Your task to perform on an android device: Show me productivity apps on the Play Store Image 0: 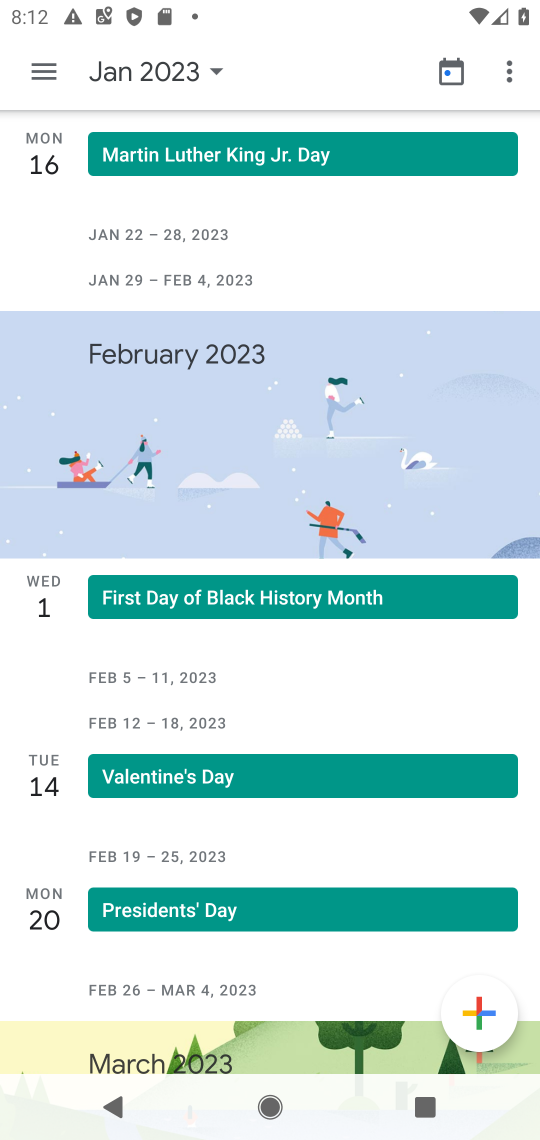
Step 0: press home button
Your task to perform on an android device: Show me productivity apps on the Play Store Image 1: 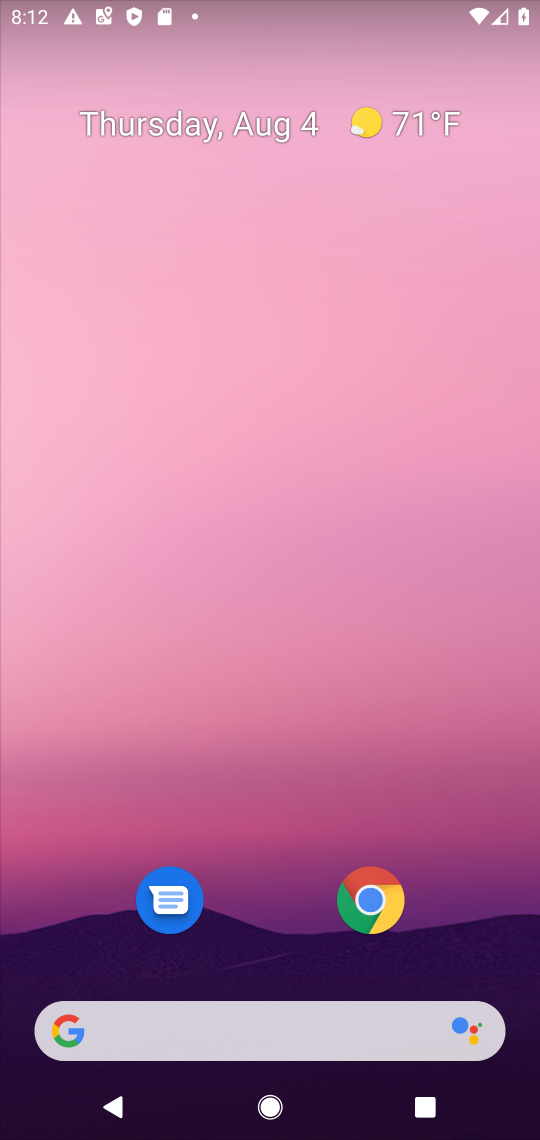
Step 1: click (228, 283)
Your task to perform on an android device: Show me productivity apps on the Play Store Image 2: 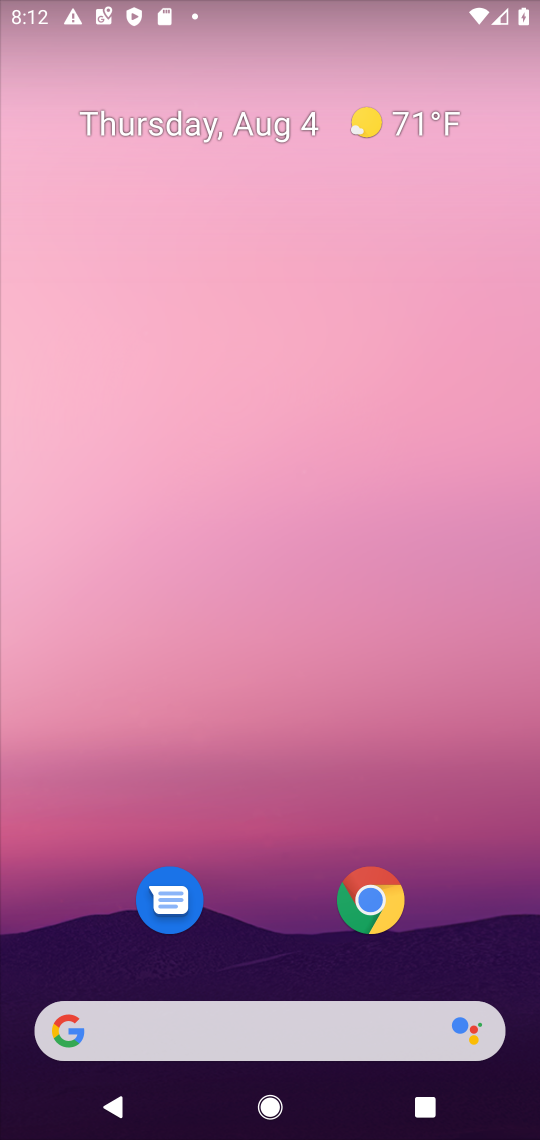
Step 2: drag from (250, 353) to (256, 186)
Your task to perform on an android device: Show me productivity apps on the Play Store Image 3: 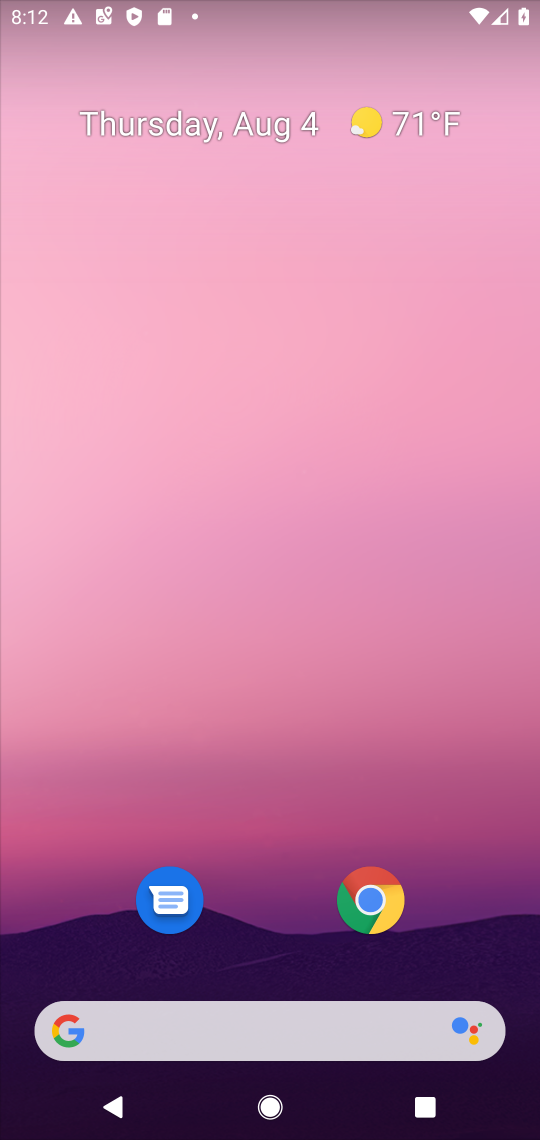
Step 3: click (307, 244)
Your task to perform on an android device: Show me productivity apps on the Play Store Image 4: 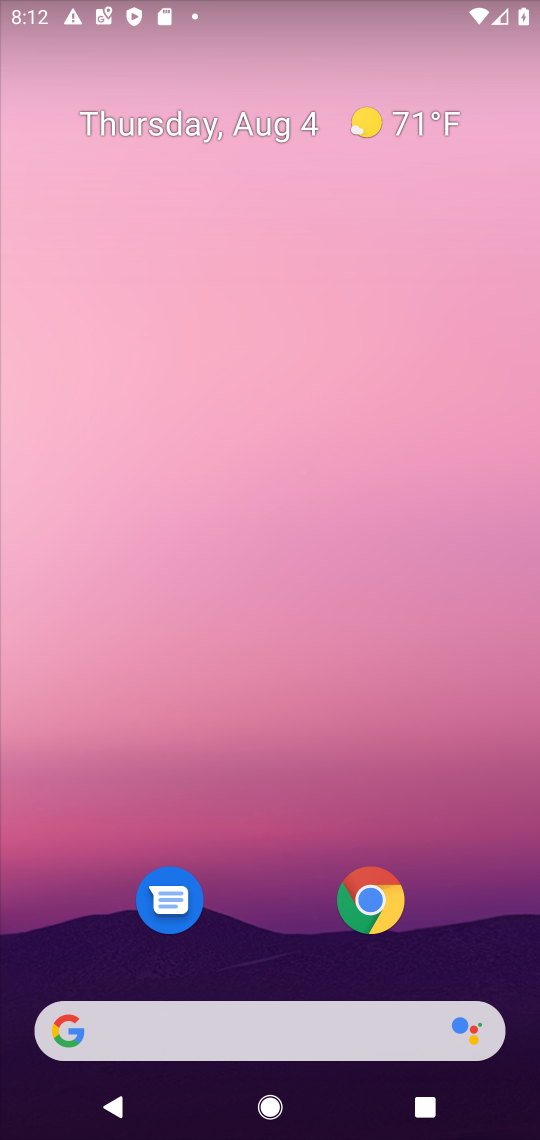
Step 4: drag from (246, 889) to (240, 406)
Your task to perform on an android device: Show me productivity apps on the Play Store Image 5: 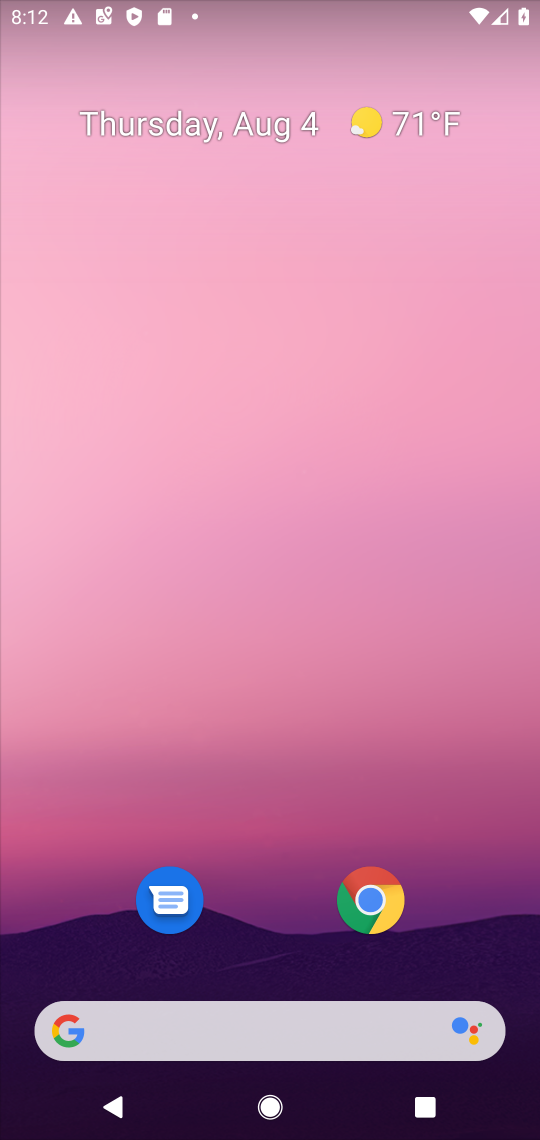
Step 5: drag from (240, 952) to (207, 1)
Your task to perform on an android device: Show me productivity apps on the Play Store Image 6: 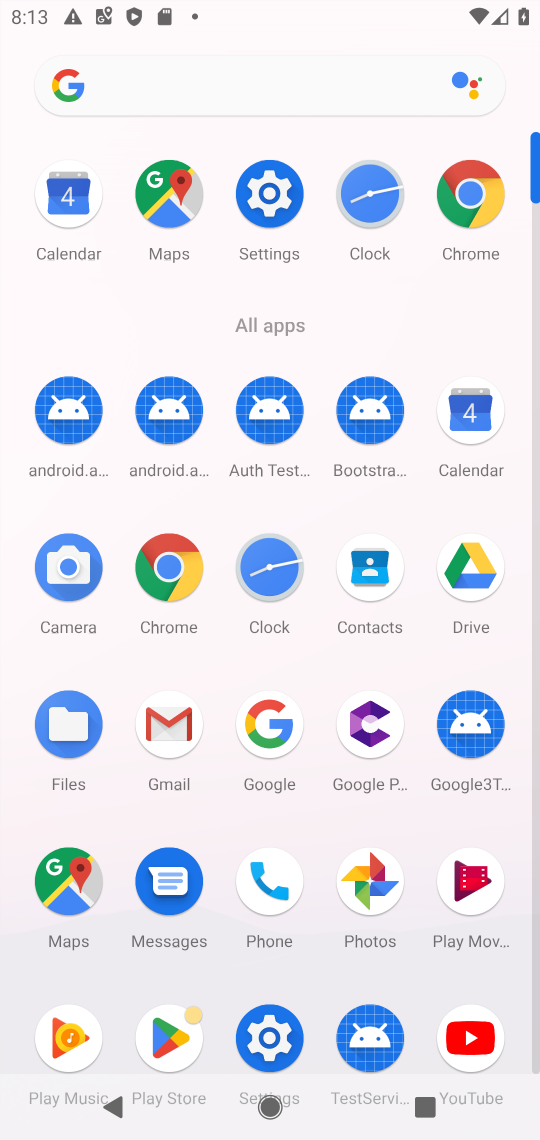
Step 6: click (163, 1024)
Your task to perform on an android device: Show me productivity apps on the Play Store Image 7: 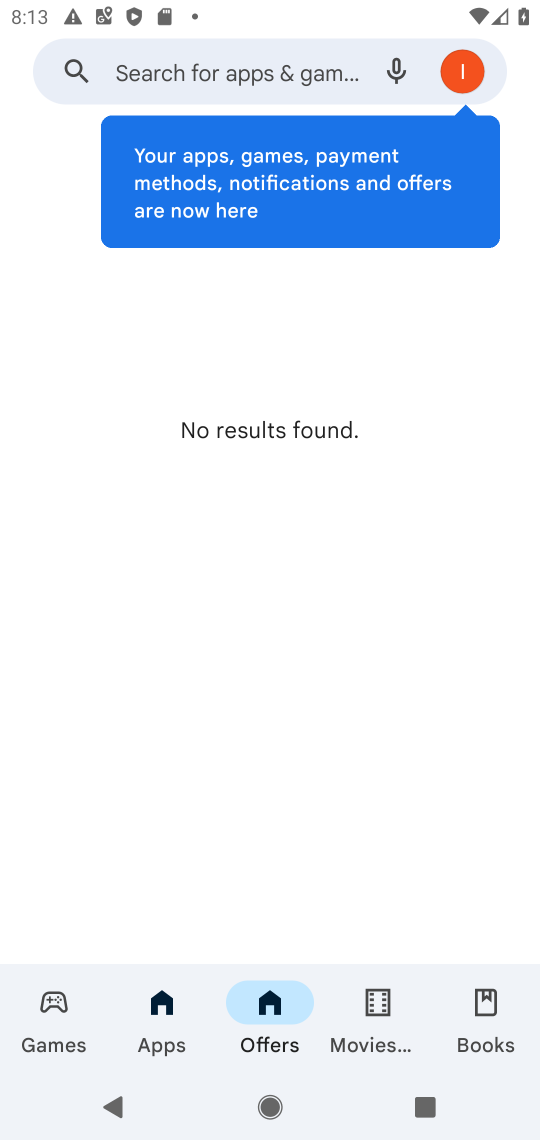
Step 7: click (157, 1007)
Your task to perform on an android device: Show me productivity apps on the Play Store Image 8: 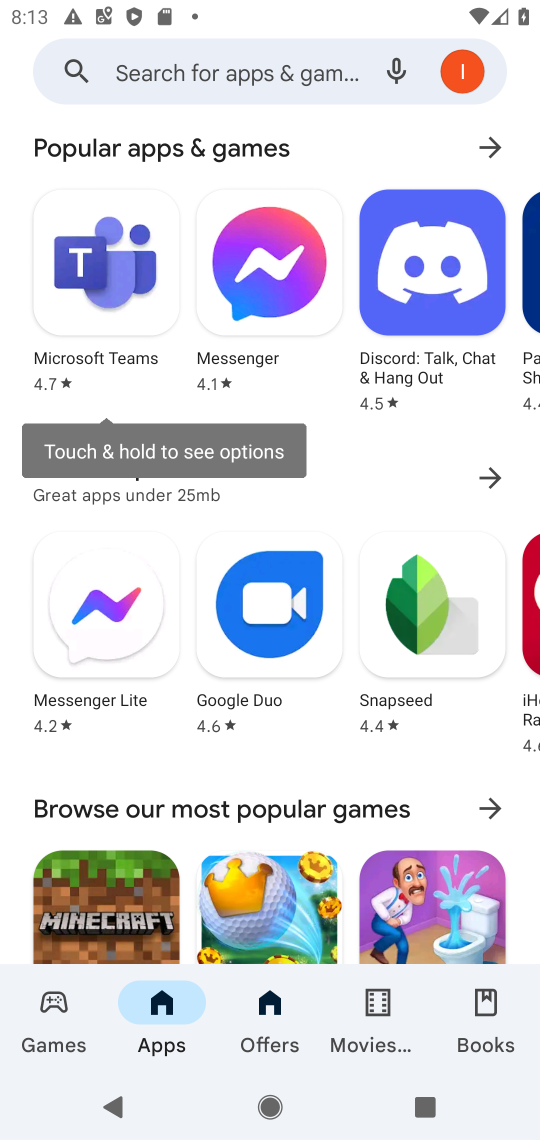
Step 8: click (487, 156)
Your task to perform on an android device: Show me productivity apps on the Play Store Image 9: 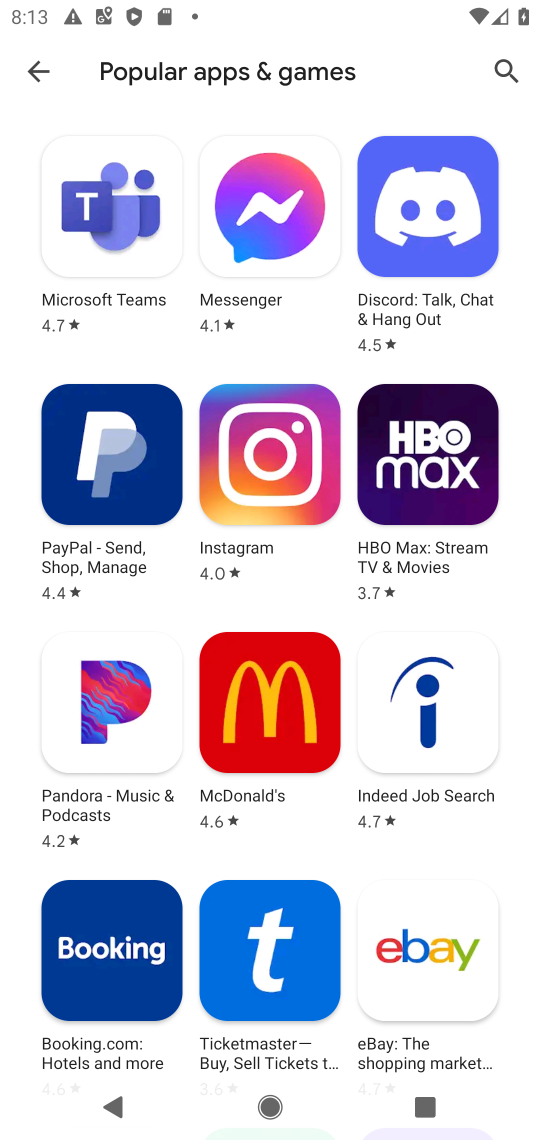
Step 9: click (41, 61)
Your task to perform on an android device: Show me productivity apps on the Play Store Image 10: 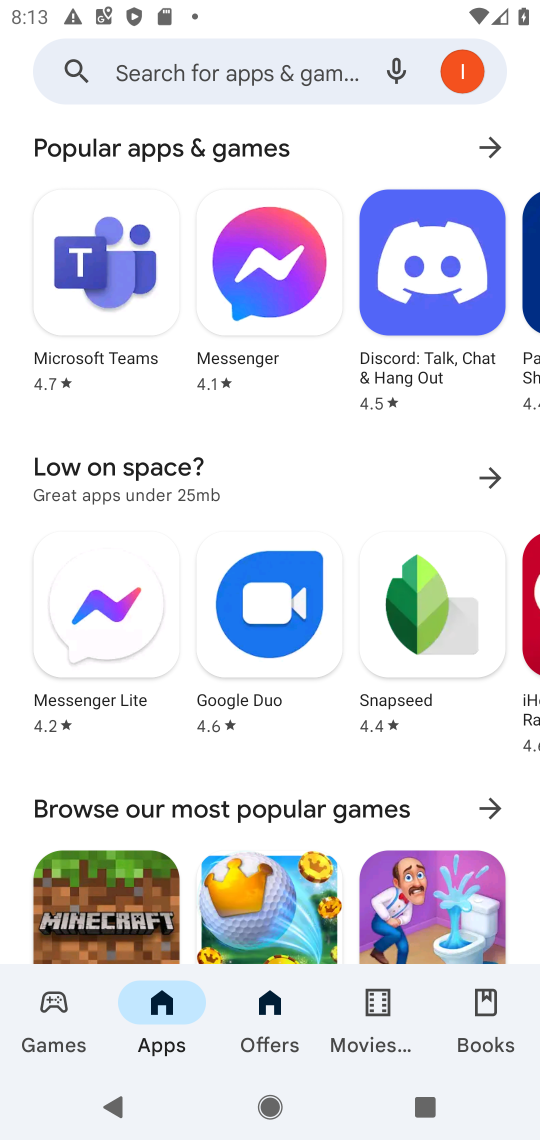
Step 10: click (200, 76)
Your task to perform on an android device: Show me productivity apps on the Play Store Image 11: 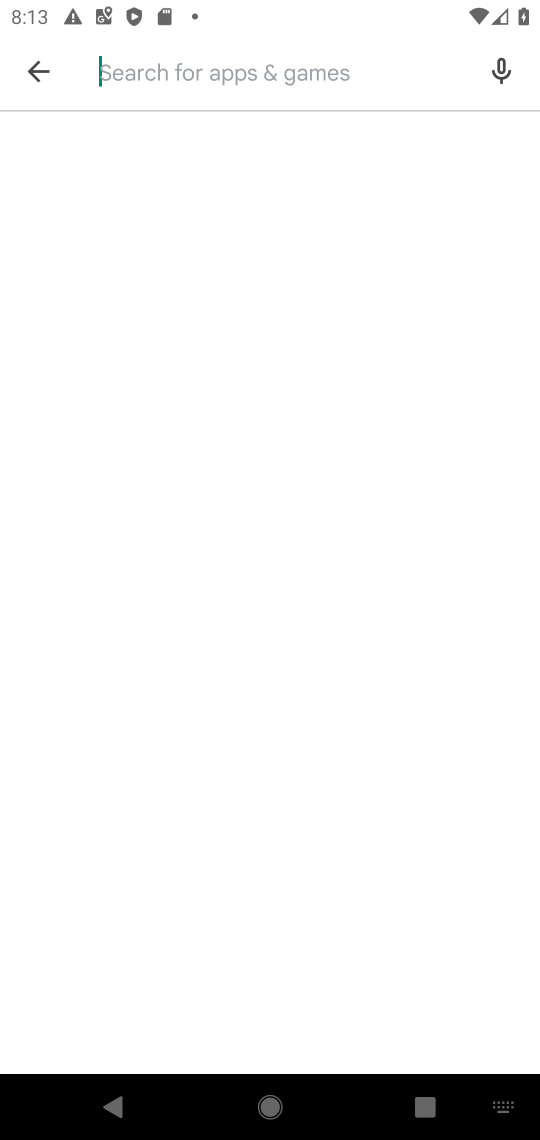
Step 11: click (37, 74)
Your task to perform on an android device: Show me productivity apps on the Play Store Image 12: 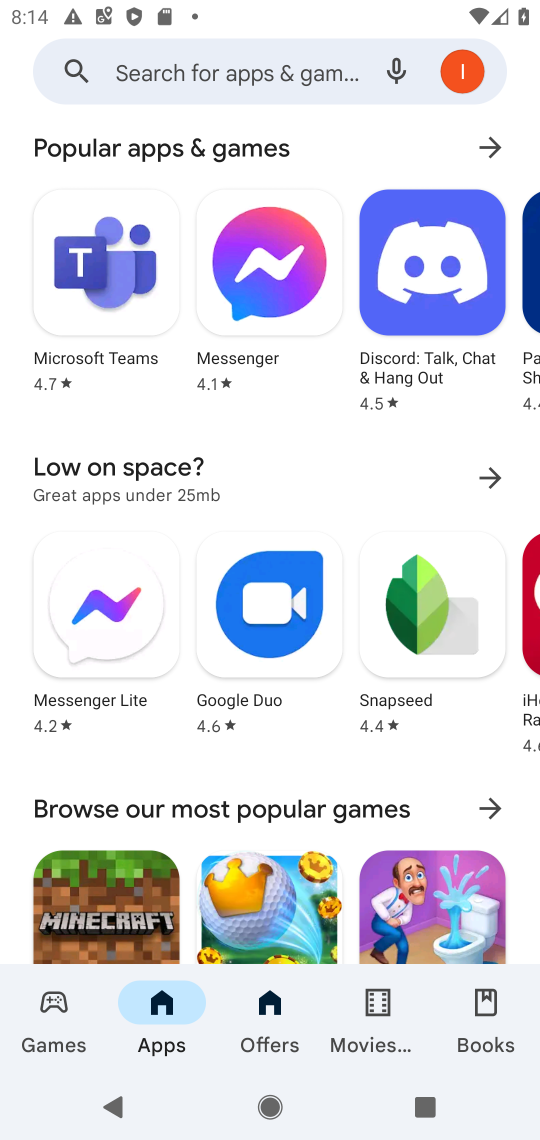
Step 12: click (269, 75)
Your task to perform on an android device: Show me productivity apps on the Play Store Image 13: 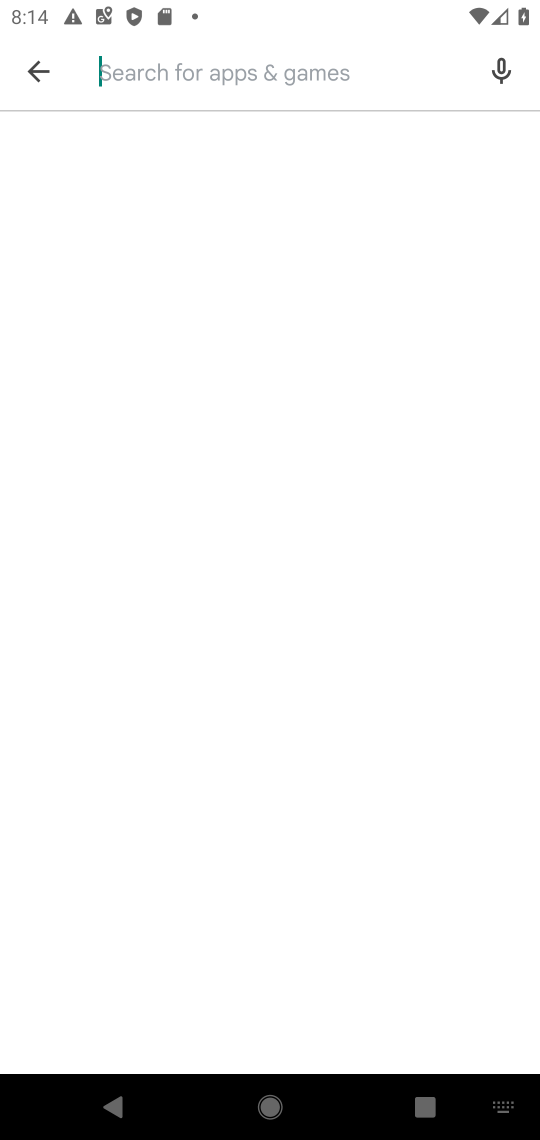
Step 13: press back button
Your task to perform on an android device: Show me productivity apps on the Play Store Image 14: 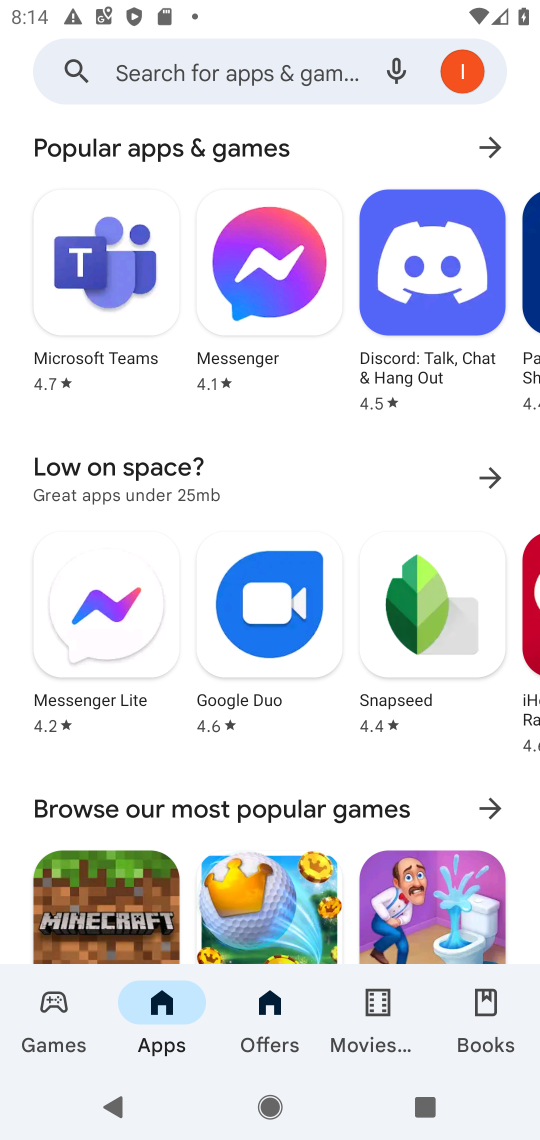
Step 14: click (268, 78)
Your task to perform on an android device: Show me productivity apps on the Play Store Image 15: 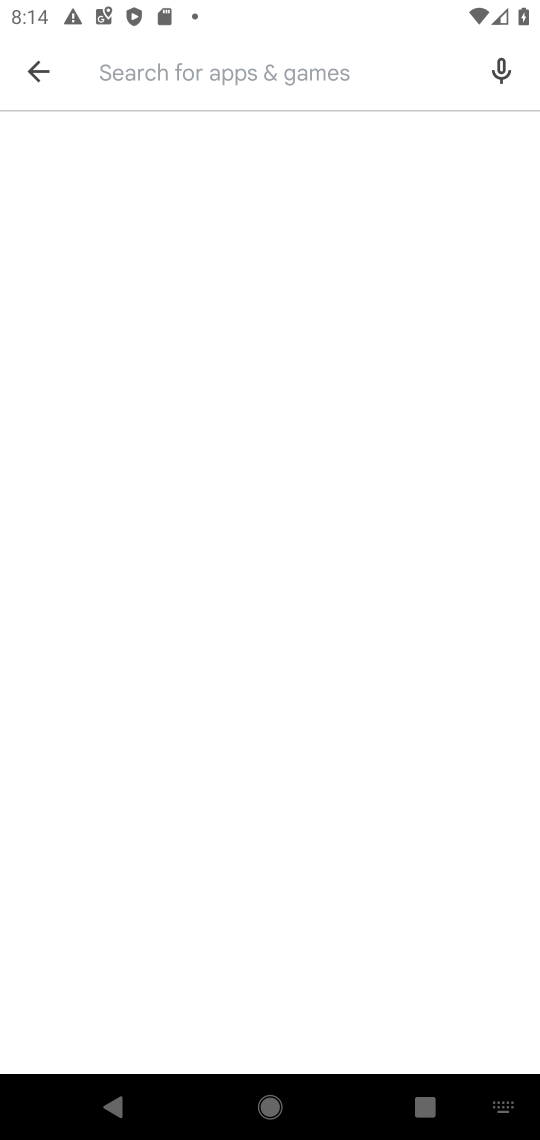
Step 15: type "productivity apps"
Your task to perform on an android device: Show me productivity apps on the Play Store Image 16: 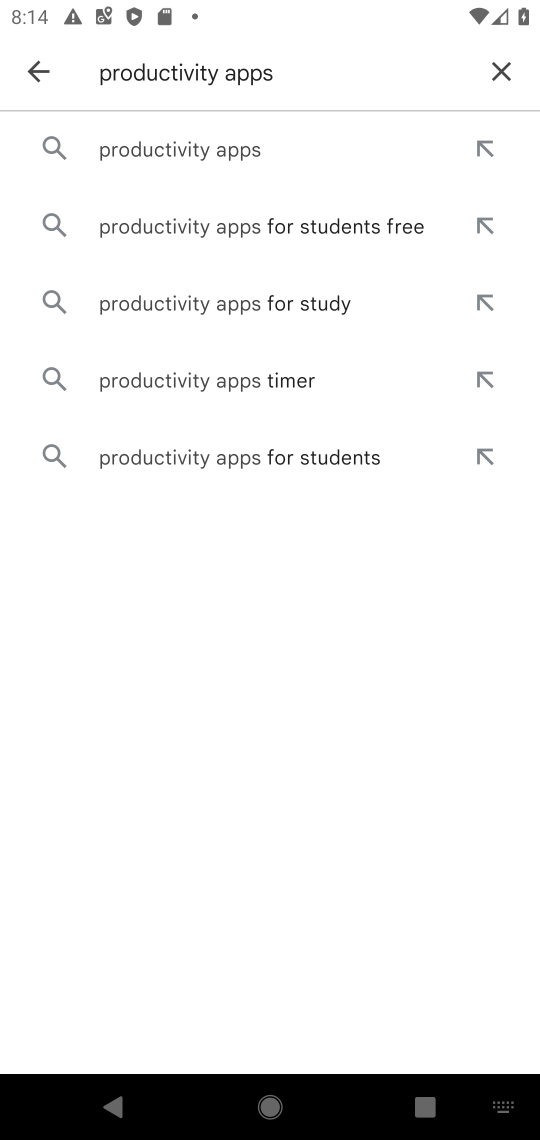
Step 16: click (158, 150)
Your task to perform on an android device: Show me productivity apps on the Play Store Image 17: 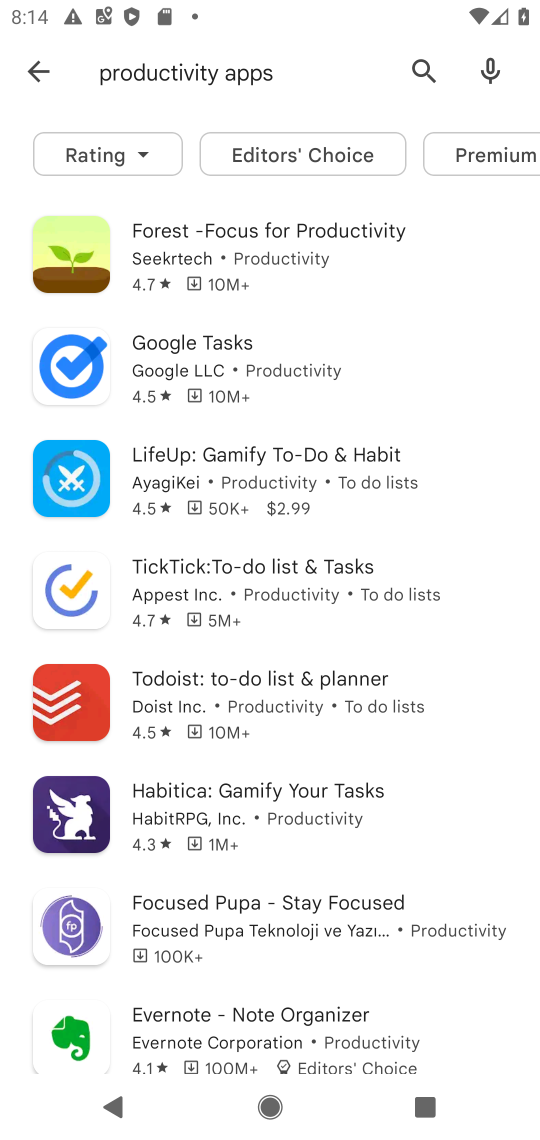
Step 17: task complete